Your task to perform on an android device: open a new tab in the chrome app Image 0: 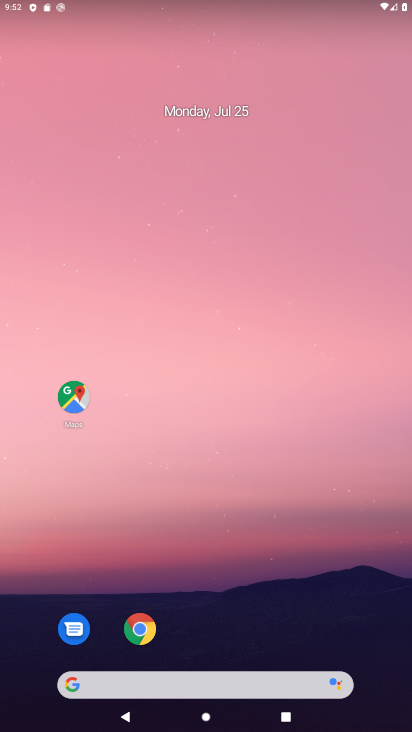
Step 0: drag from (283, 557) to (257, 148)
Your task to perform on an android device: open a new tab in the chrome app Image 1: 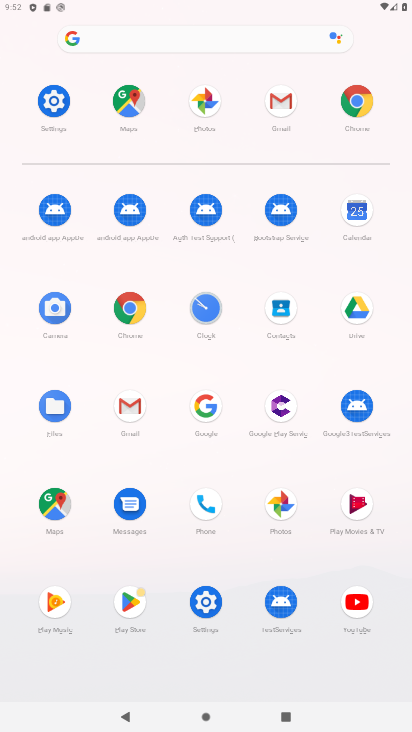
Step 1: click (361, 103)
Your task to perform on an android device: open a new tab in the chrome app Image 2: 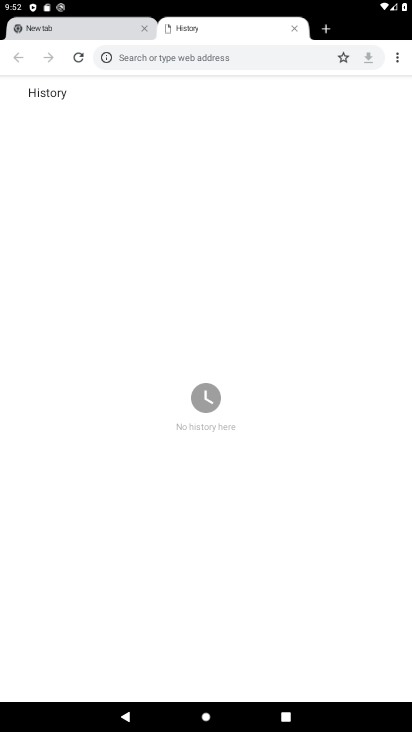
Step 2: task complete